Your task to perform on an android device: set the timer Image 0: 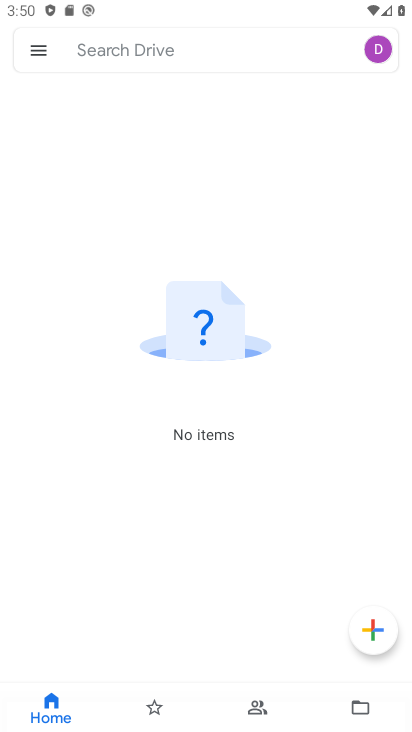
Step 0: press home button
Your task to perform on an android device: set the timer Image 1: 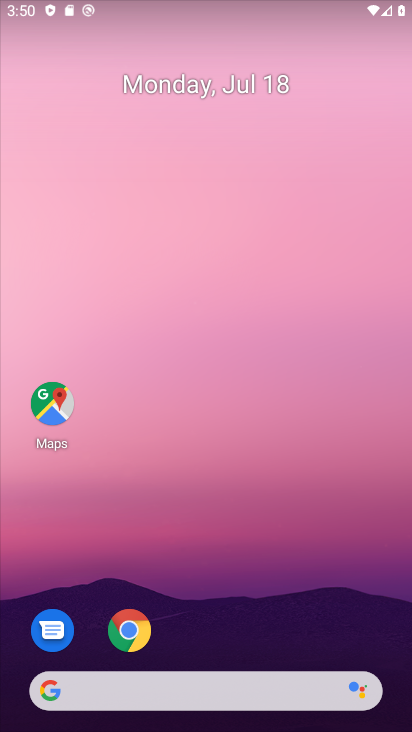
Step 1: drag from (289, 624) to (302, 67)
Your task to perform on an android device: set the timer Image 2: 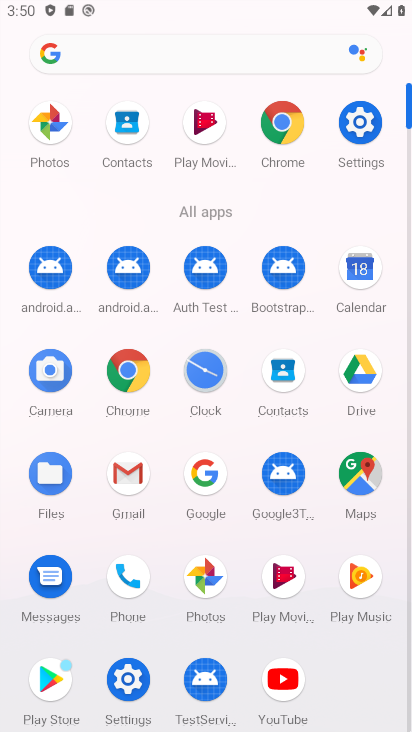
Step 2: click (205, 371)
Your task to perform on an android device: set the timer Image 3: 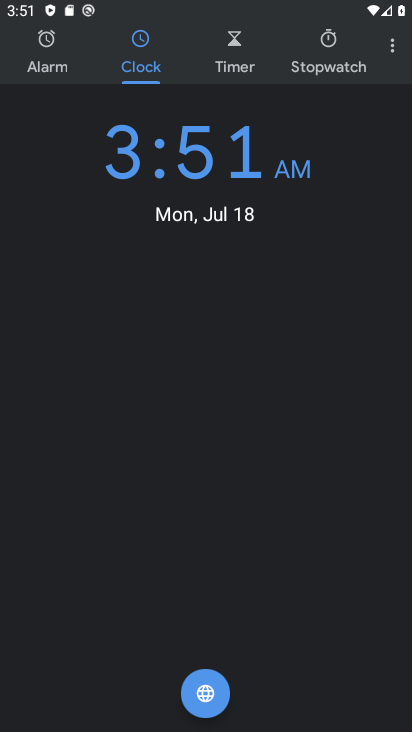
Step 3: click (254, 58)
Your task to perform on an android device: set the timer Image 4: 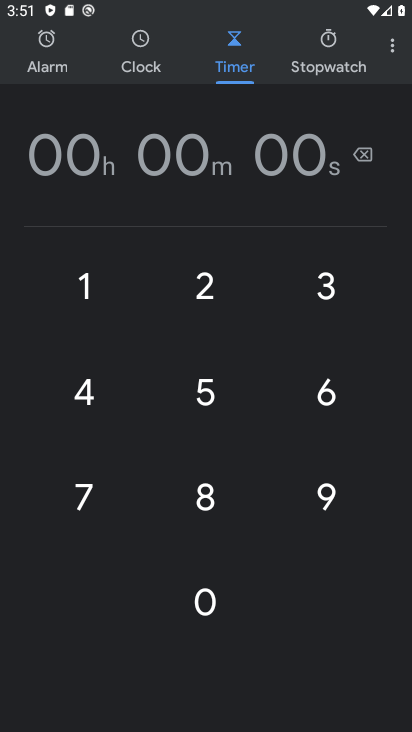
Step 4: click (217, 392)
Your task to perform on an android device: set the timer Image 5: 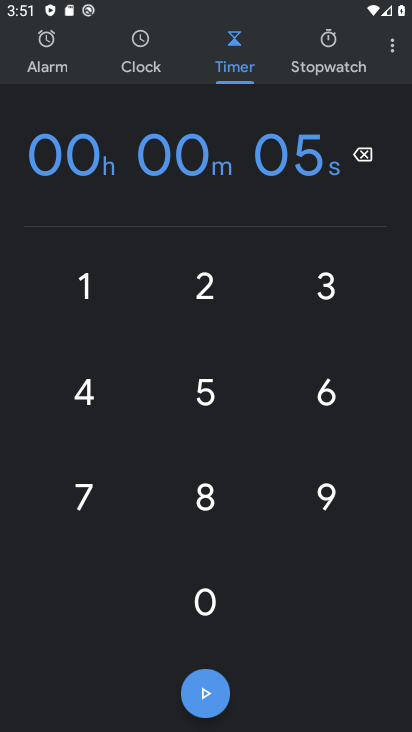
Step 5: task complete